Your task to perform on an android device: add a label to a message in the gmail app Image 0: 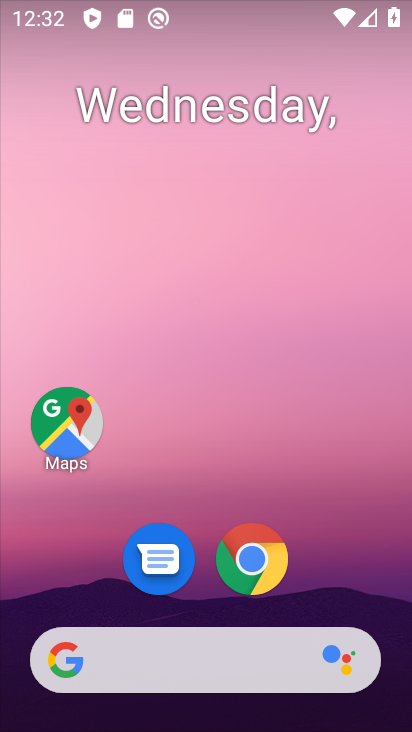
Step 0: drag from (334, 466) to (339, 188)
Your task to perform on an android device: add a label to a message in the gmail app Image 1: 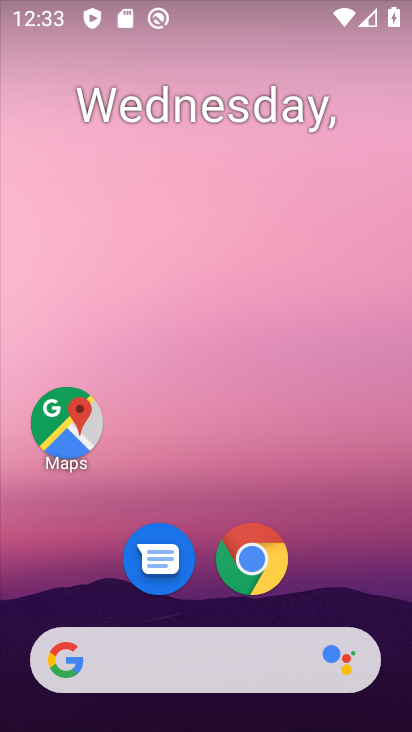
Step 1: drag from (332, 503) to (289, 83)
Your task to perform on an android device: add a label to a message in the gmail app Image 2: 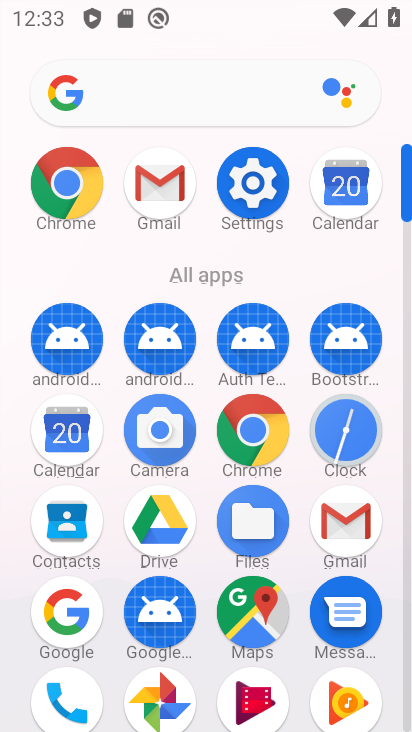
Step 2: click (333, 540)
Your task to perform on an android device: add a label to a message in the gmail app Image 3: 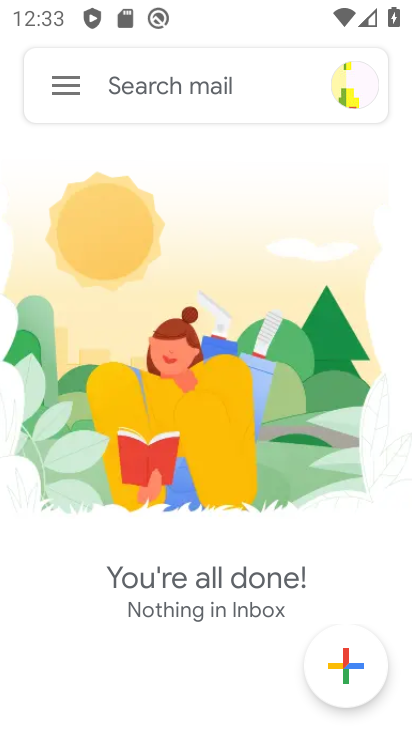
Step 3: click (67, 90)
Your task to perform on an android device: add a label to a message in the gmail app Image 4: 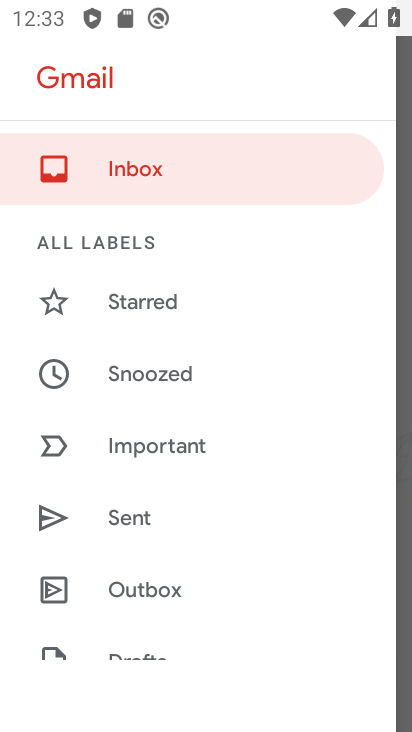
Step 4: drag from (139, 220) to (128, 280)
Your task to perform on an android device: add a label to a message in the gmail app Image 5: 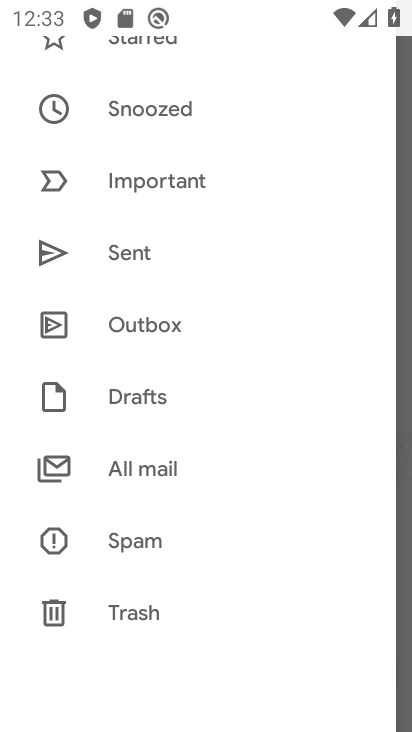
Step 5: drag from (231, 171) to (231, 586)
Your task to perform on an android device: add a label to a message in the gmail app Image 6: 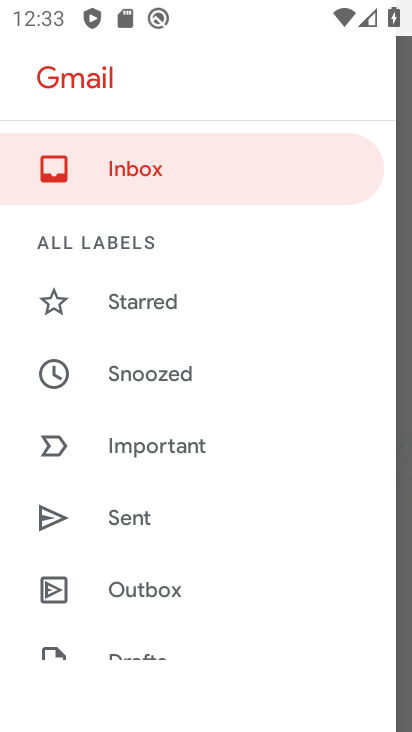
Step 6: click (252, 176)
Your task to perform on an android device: add a label to a message in the gmail app Image 7: 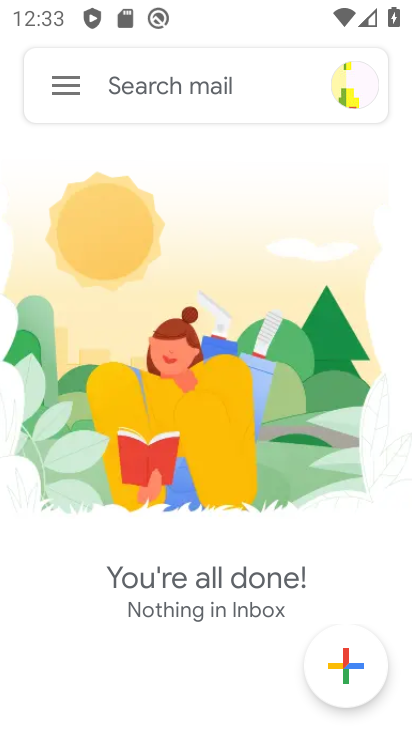
Step 7: task complete